Your task to perform on an android device: see tabs open on other devices in the chrome app Image 0: 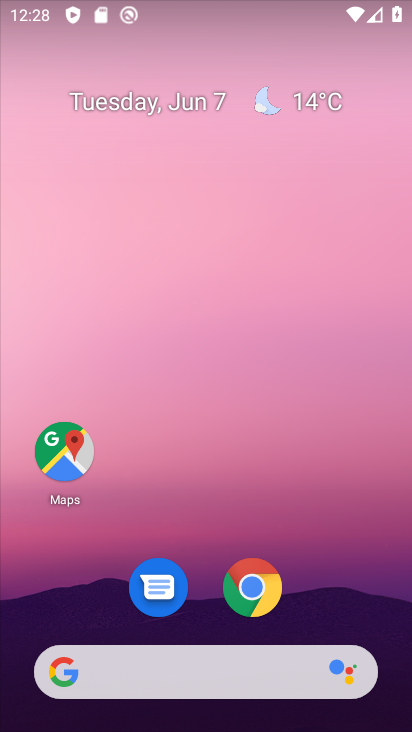
Step 0: drag from (210, 705) to (228, 404)
Your task to perform on an android device: see tabs open on other devices in the chrome app Image 1: 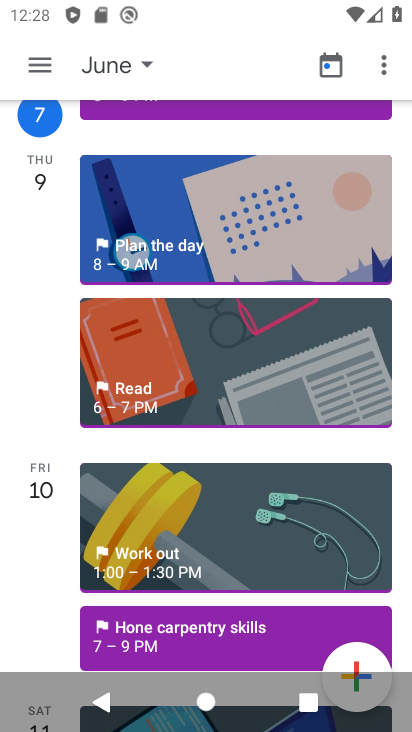
Step 1: press home button
Your task to perform on an android device: see tabs open on other devices in the chrome app Image 2: 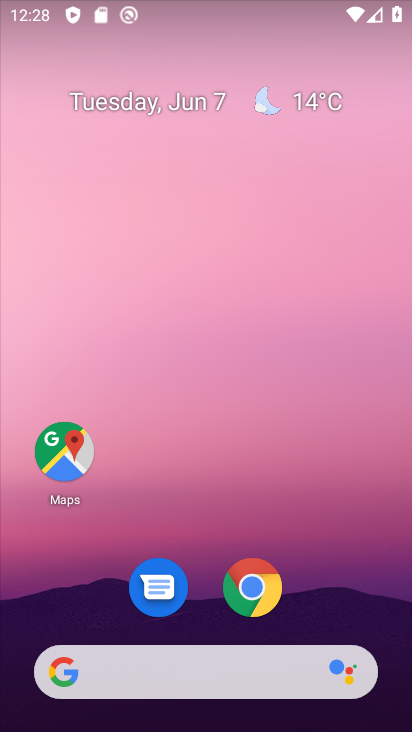
Step 2: drag from (299, 633) to (280, 74)
Your task to perform on an android device: see tabs open on other devices in the chrome app Image 3: 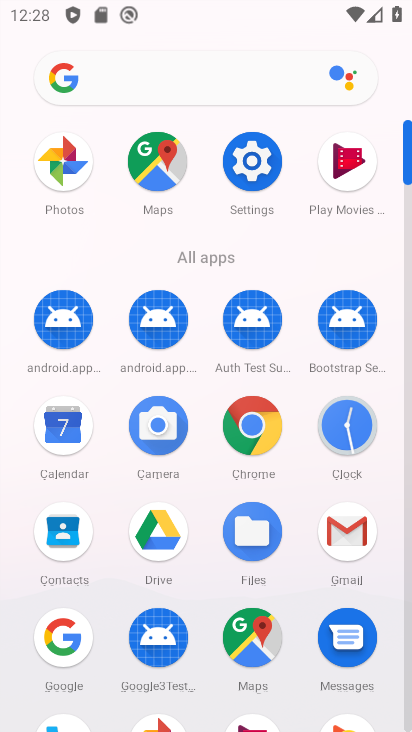
Step 3: click (273, 437)
Your task to perform on an android device: see tabs open on other devices in the chrome app Image 4: 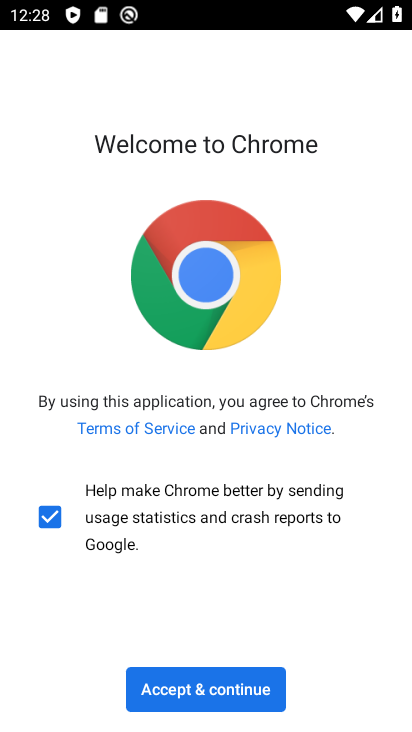
Step 4: click (241, 677)
Your task to perform on an android device: see tabs open on other devices in the chrome app Image 5: 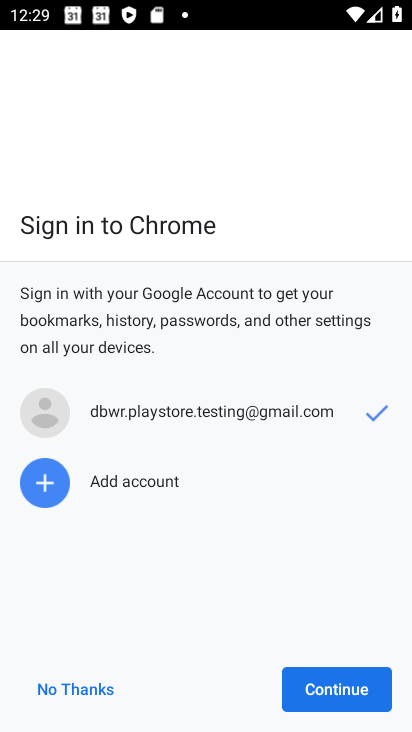
Step 5: click (316, 697)
Your task to perform on an android device: see tabs open on other devices in the chrome app Image 6: 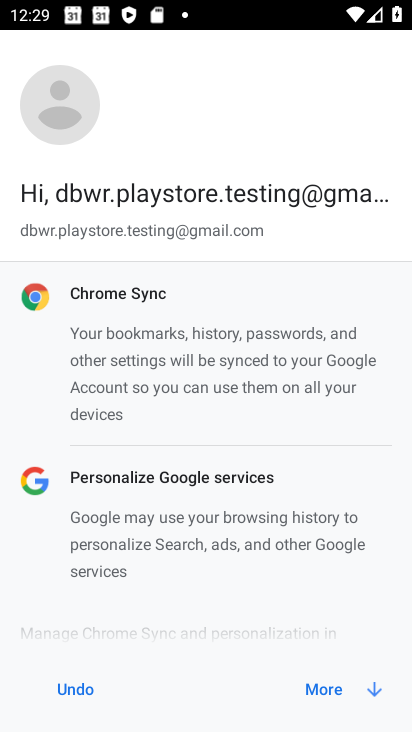
Step 6: click (321, 693)
Your task to perform on an android device: see tabs open on other devices in the chrome app Image 7: 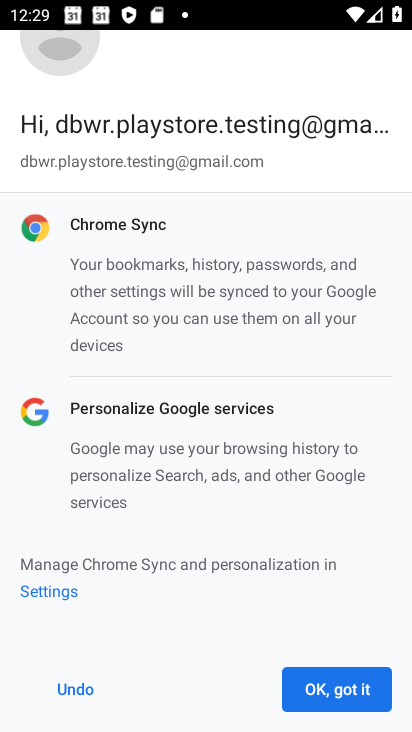
Step 7: click (322, 692)
Your task to perform on an android device: see tabs open on other devices in the chrome app Image 8: 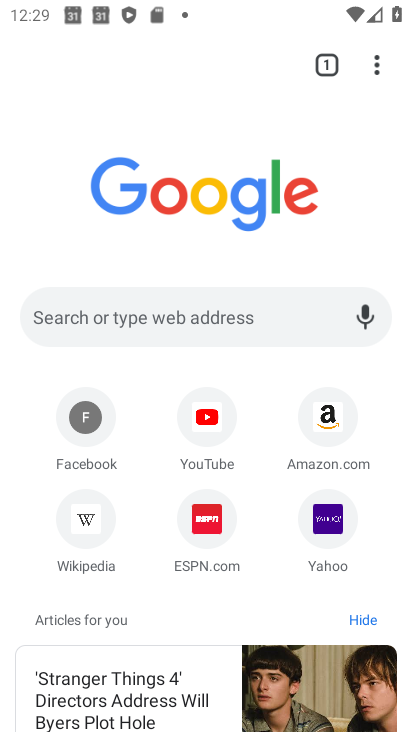
Step 8: task complete